Your task to perform on an android device: Turn on the flashlight Image 0: 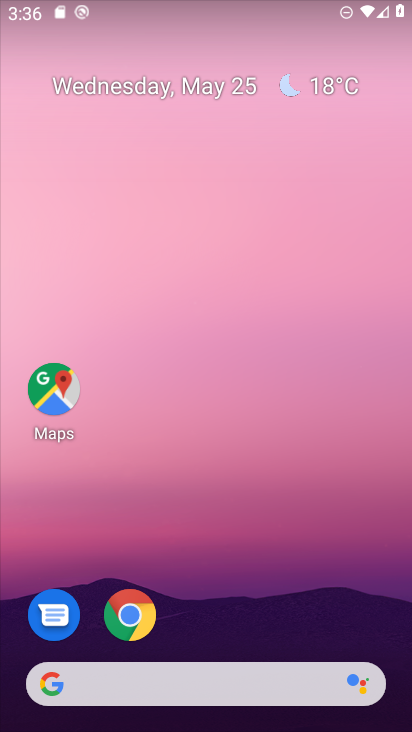
Step 0: drag from (292, 611) to (283, 12)
Your task to perform on an android device: Turn on the flashlight Image 1: 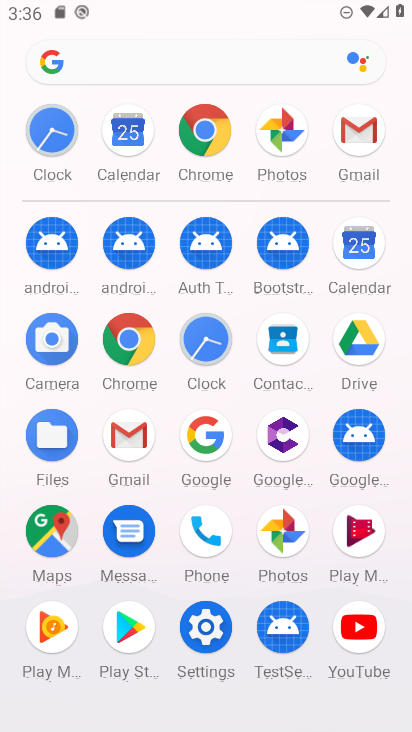
Step 1: click (206, 610)
Your task to perform on an android device: Turn on the flashlight Image 2: 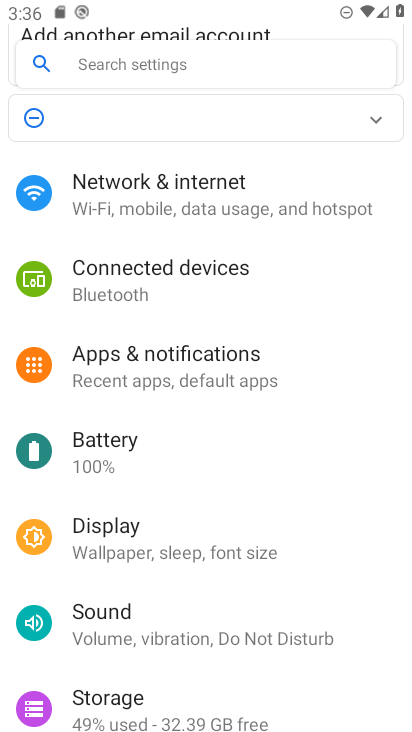
Step 2: click (285, 59)
Your task to perform on an android device: Turn on the flashlight Image 3: 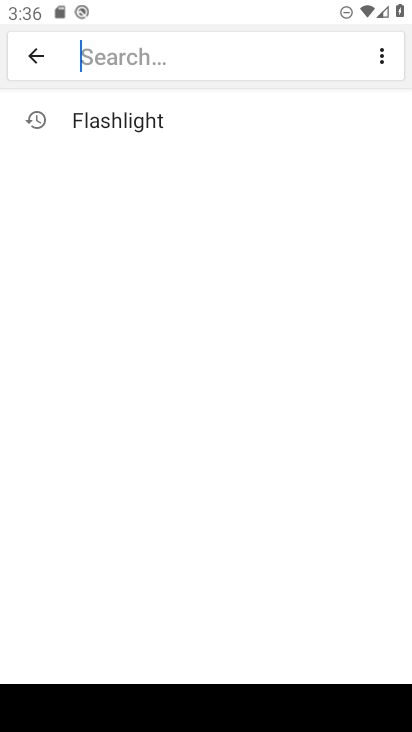
Step 3: click (146, 108)
Your task to perform on an android device: Turn on the flashlight Image 4: 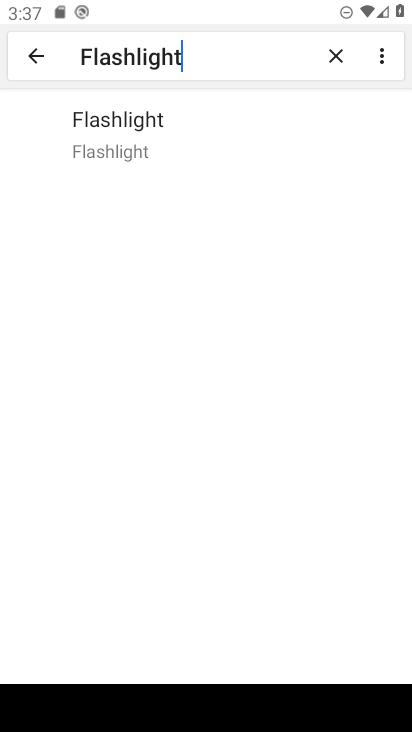
Step 4: click (146, 127)
Your task to perform on an android device: Turn on the flashlight Image 5: 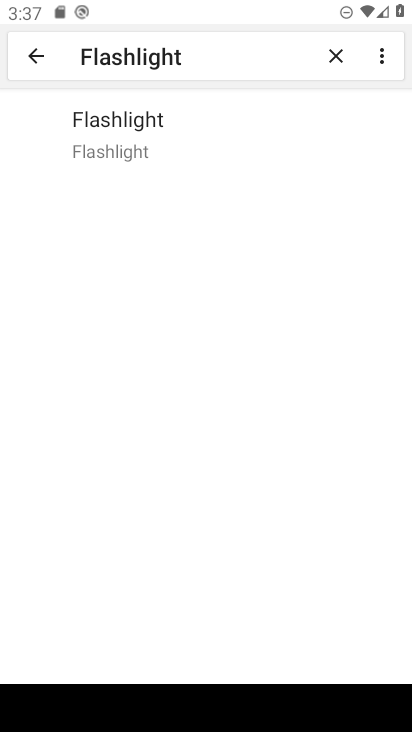
Step 5: task complete